Your task to perform on an android device: Open wifi settings Image 0: 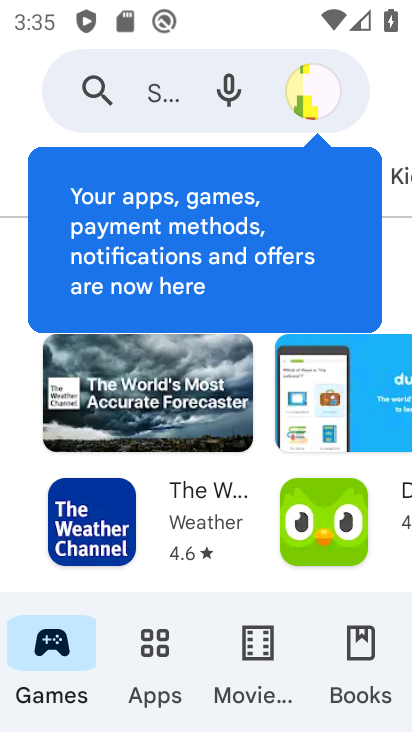
Step 0: press home button
Your task to perform on an android device: Open wifi settings Image 1: 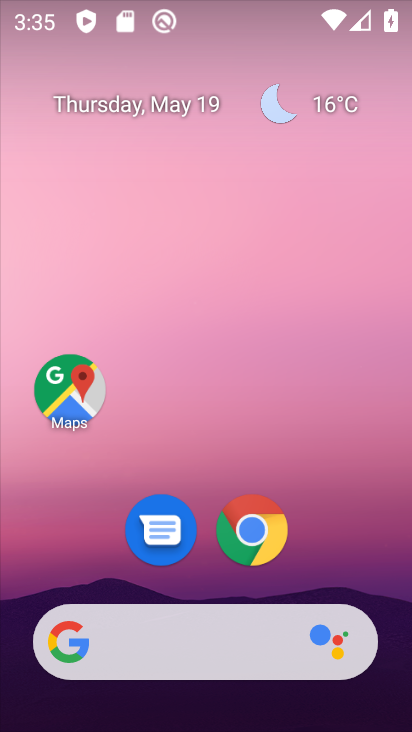
Step 1: drag from (365, 479) to (368, 158)
Your task to perform on an android device: Open wifi settings Image 2: 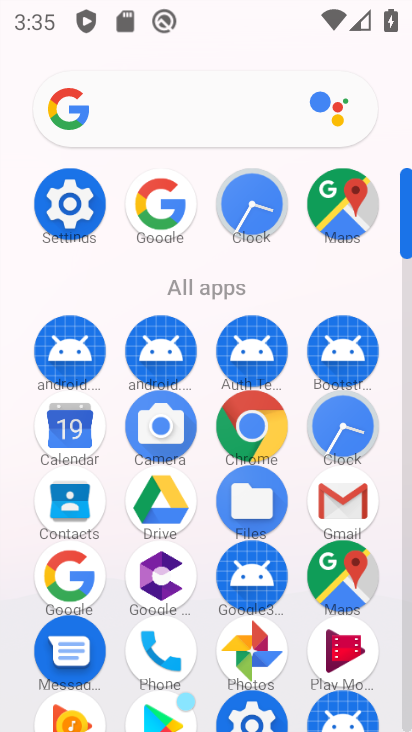
Step 2: click (76, 223)
Your task to perform on an android device: Open wifi settings Image 3: 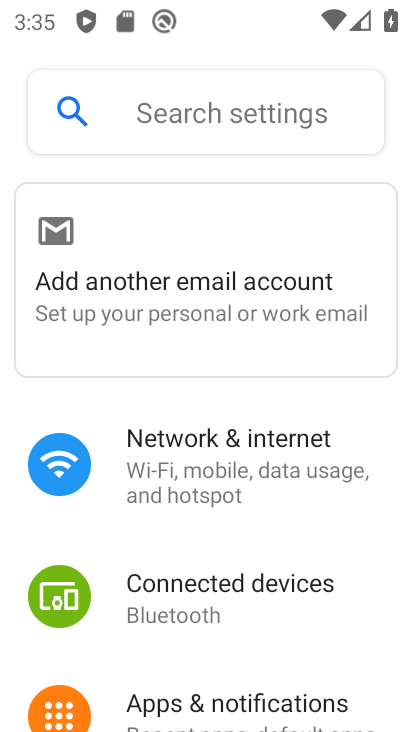
Step 3: drag from (190, 628) to (204, 459)
Your task to perform on an android device: Open wifi settings Image 4: 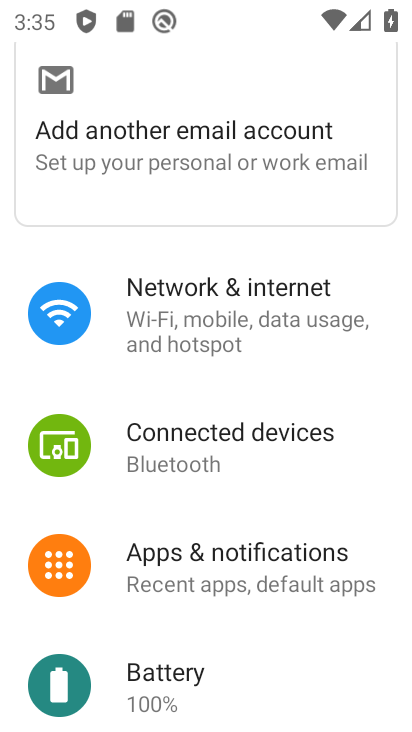
Step 4: click (192, 347)
Your task to perform on an android device: Open wifi settings Image 5: 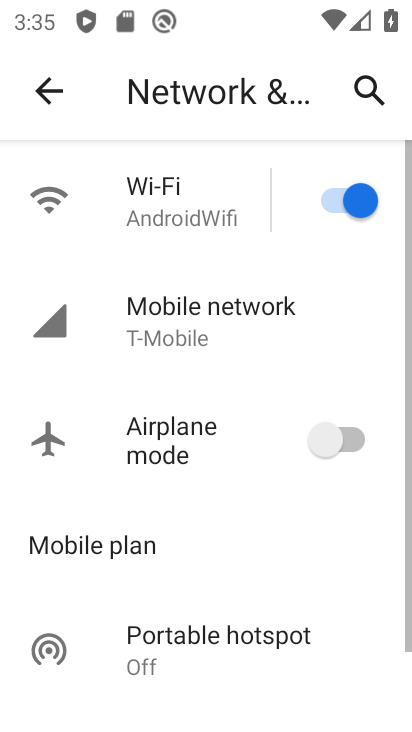
Step 5: click (178, 187)
Your task to perform on an android device: Open wifi settings Image 6: 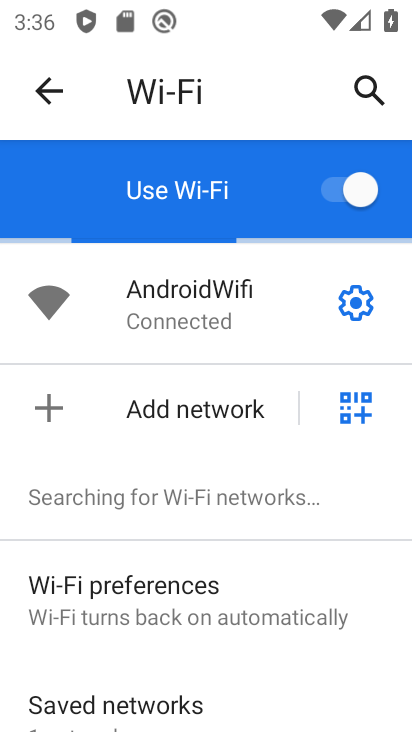
Step 6: task complete